Your task to perform on an android device: set an alarm Image 0: 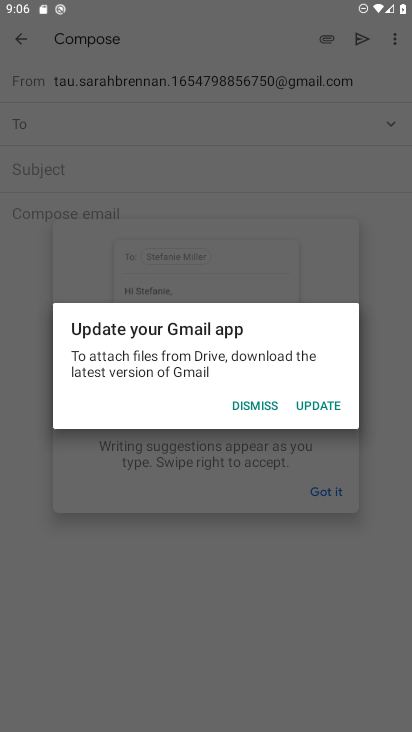
Step 0: press home button
Your task to perform on an android device: set an alarm Image 1: 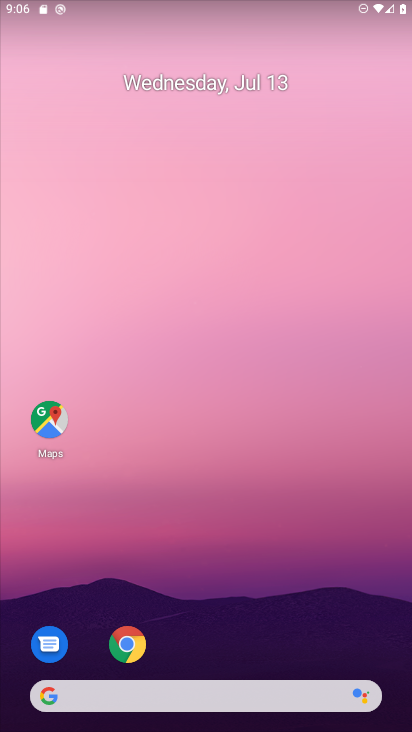
Step 1: drag from (251, 556) to (175, 53)
Your task to perform on an android device: set an alarm Image 2: 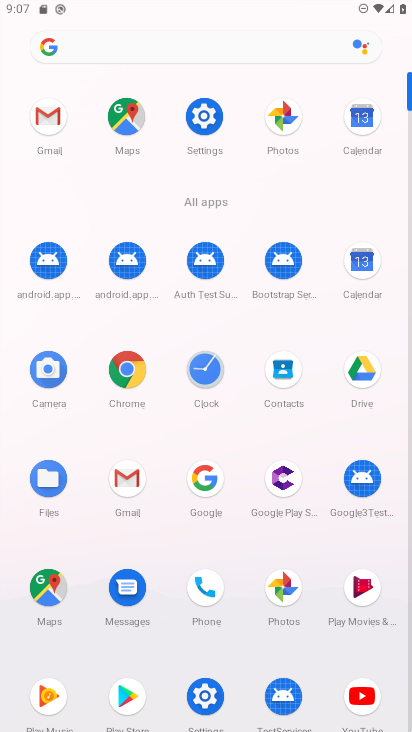
Step 2: click (199, 367)
Your task to perform on an android device: set an alarm Image 3: 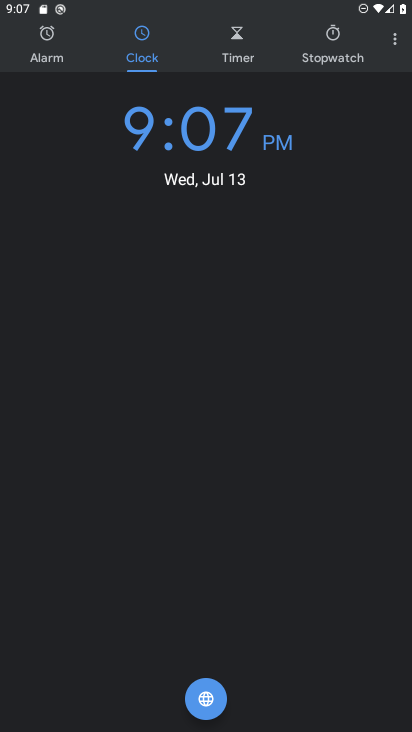
Step 3: click (43, 45)
Your task to perform on an android device: set an alarm Image 4: 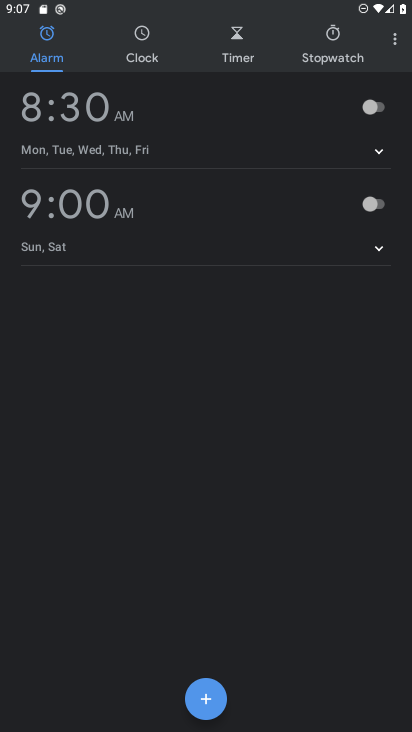
Step 4: click (192, 704)
Your task to perform on an android device: set an alarm Image 5: 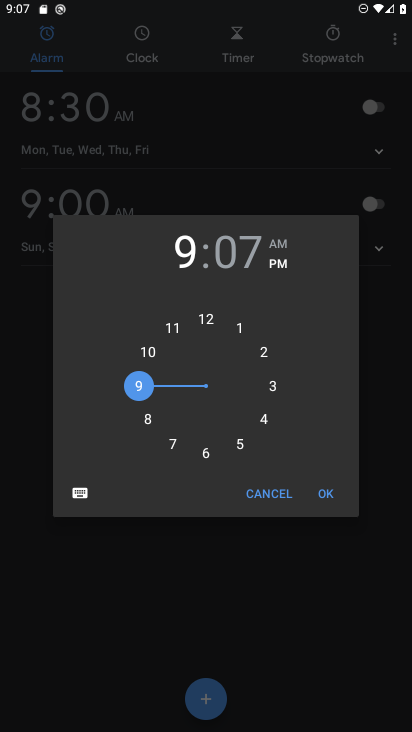
Step 5: click (258, 418)
Your task to perform on an android device: set an alarm Image 6: 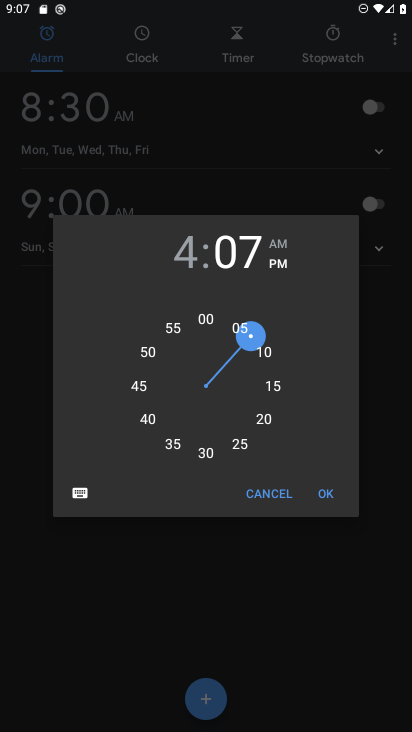
Step 6: click (328, 488)
Your task to perform on an android device: set an alarm Image 7: 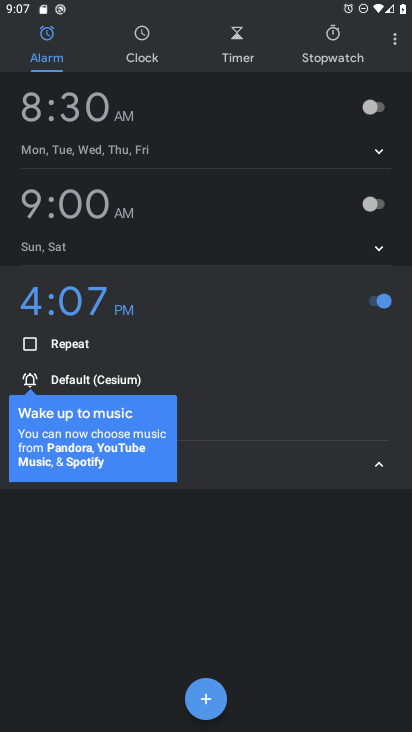
Step 7: task complete